Your task to perform on an android device: uninstall "Google Play Music" Image 0: 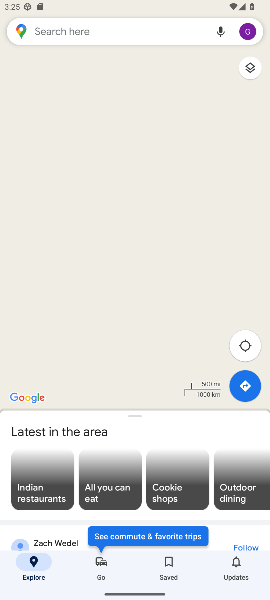
Step 0: press home button
Your task to perform on an android device: uninstall "Google Play Music" Image 1: 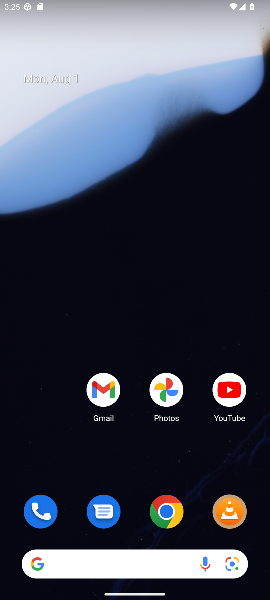
Step 1: drag from (142, 523) to (142, 166)
Your task to perform on an android device: uninstall "Google Play Music" Image 2: 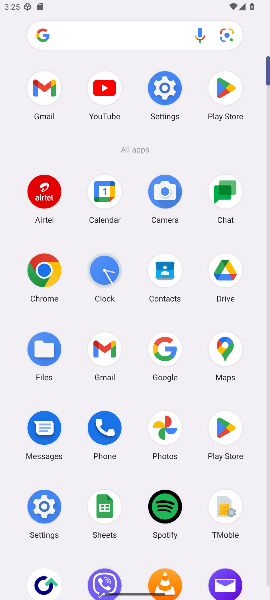
Step 2: click (216, 109)
Your task to perform on an android device: uninstall "Google Play Music" Image 3: 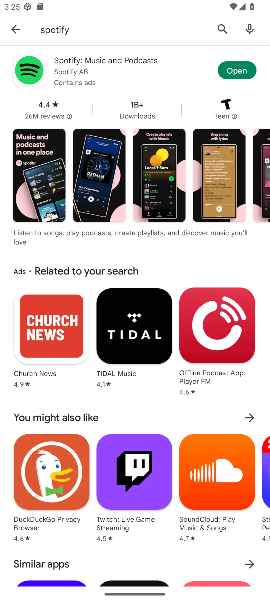
Step 3: click (13, 29)
Your task to perform on an android device: uninstall "Google Play Music" Image 4: 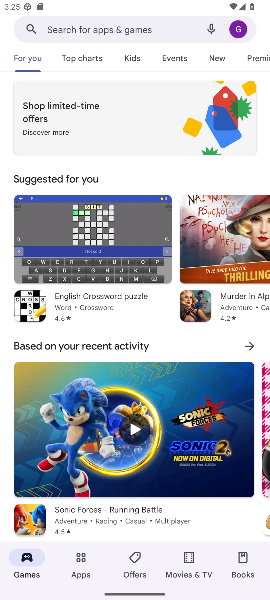
Step 4: click (88, 26)
Your task to perform on an android device: uninstall "Google Play Music" Image 5: 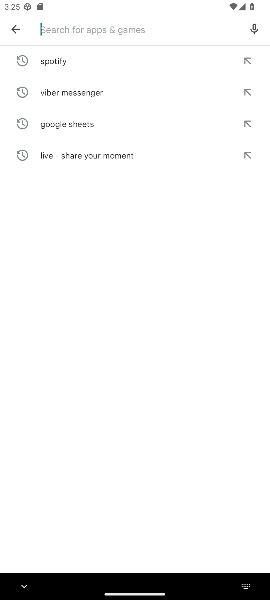
Step 5: type "Google Play Music"
Your task to perform on an android device: uninstall "Google Play Music" Image 6: 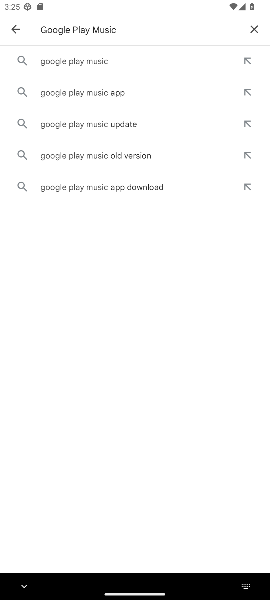
Step 6: click (70, 60)
Your task to perform on an android device: uninstall "Google Play Music" Image 7: 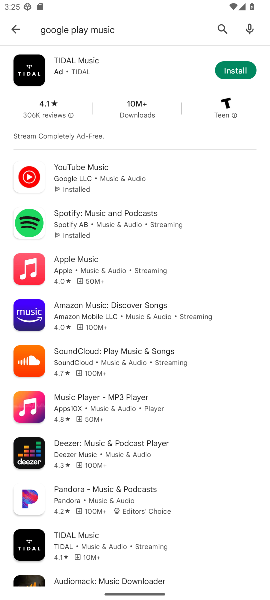
Step 7: click (230, 72)
Your task to perform on an android device: uninstall "Google Play Music" Image 8: 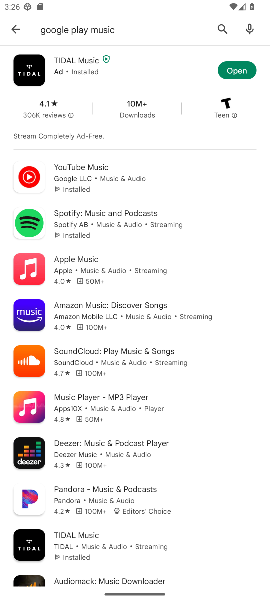
Step 8: click (246, 64)
Your task to perform on an android device: uninstall "Google Play Music" Image 9: 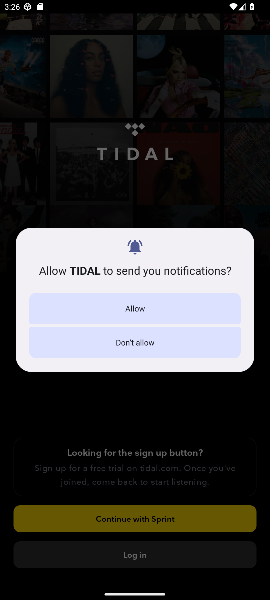
Step 9: click (135, 306)
Your task to perform on an android device: uninstall "Google Play Music" Image 10: 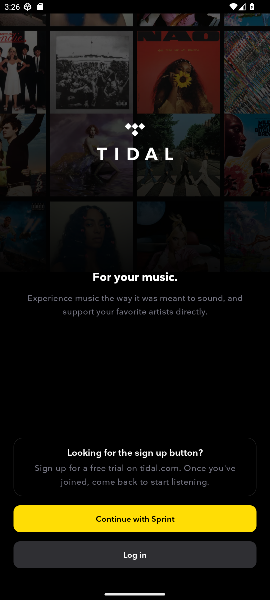
Step 10: task complete